Your task to perform on an android device: turn off improve location accuracy Image 0: 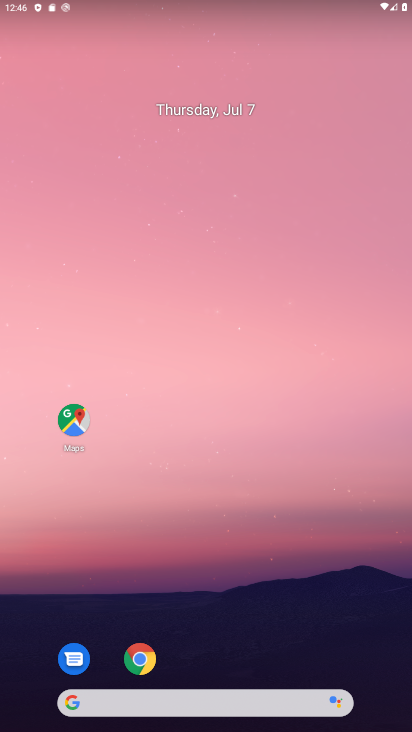
Step 0: drag from (194, 689) to (280, 136)
Your task to perform on an android device: turn off improve location accuracy Image 1: 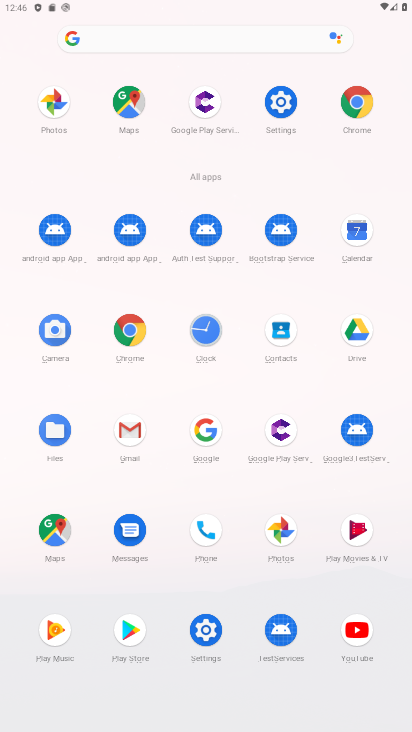
Step 1: click (207, 625)
Your task to perform on an android device: turn off improve location accuracy Image 2: 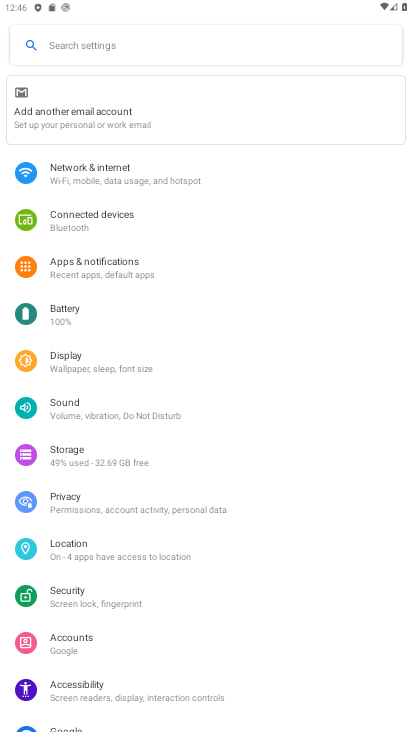
Step 2: drag from (86, 598) to (151, 549)
Your task to perform on an android device: turn off improve location accuracy Image 3: 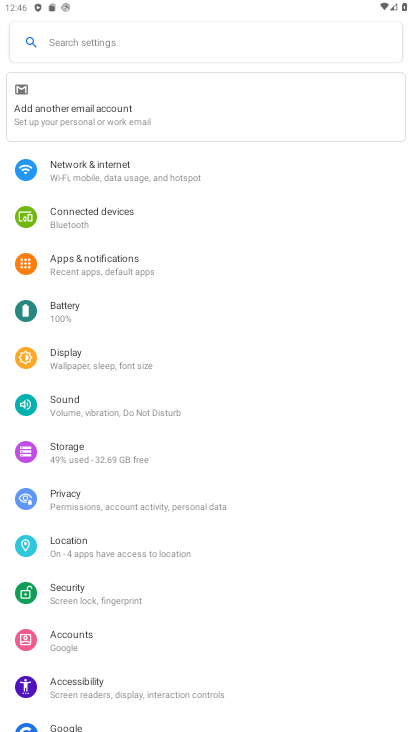
Step 3: click (105, 544)
Your task to perform on an android device: turn off improve location accuracy Image 4: 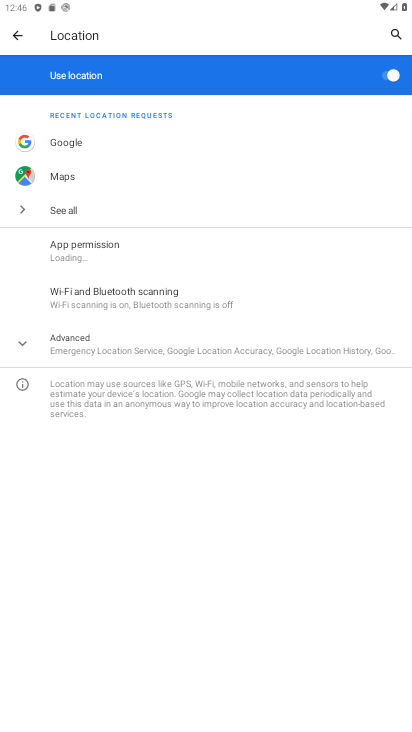
Step 4: click (181, 342)
Your task to perform on an android device: turn off improve location accuracy Image 5: 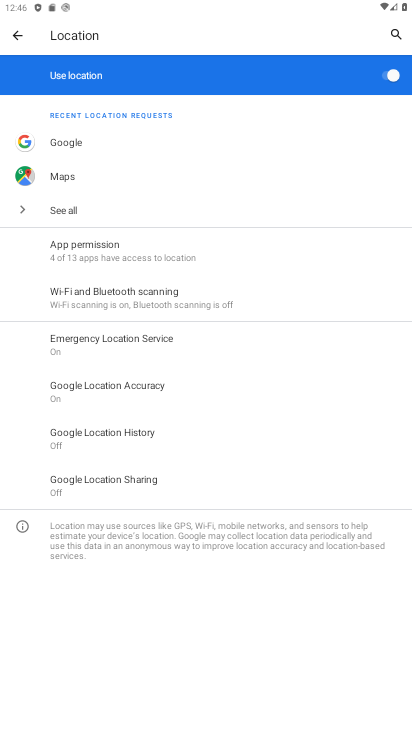
Step 5: click (163, 391)
Your task to perform on an android device: turn off improve location accuracy Image 6: 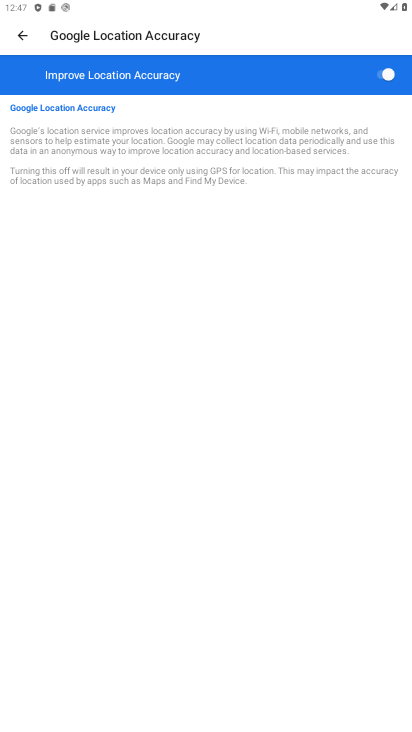
Step 6: click (380, 69)
Your task to perform on an android device: turn off improve location accuracy Image 7: 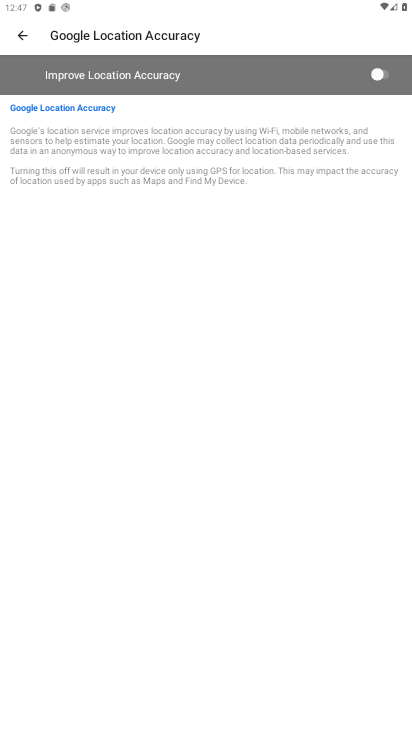
Step 7: task complete